Your task to perform on an android device: uninstall "Messages" Image 0: 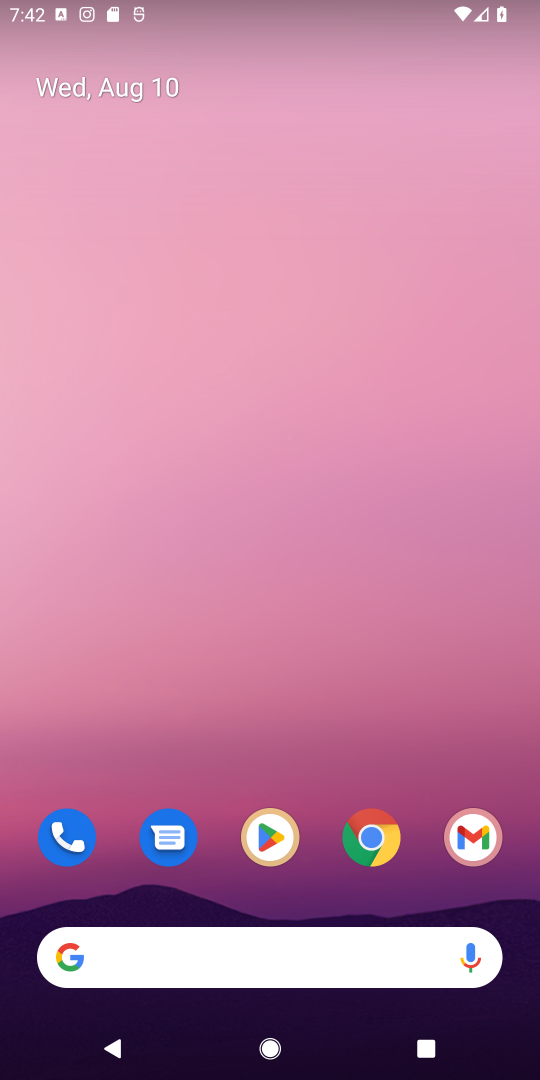
Step 0: press home button
Your task to perform on an android device: uninstall "Messages" Image 1: 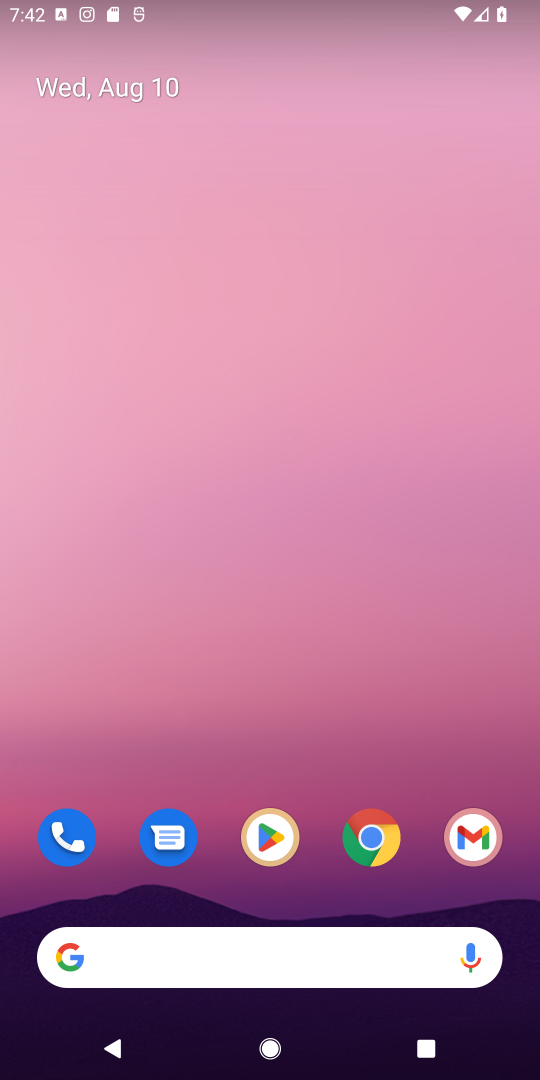
Step 1: click (264, 837)
Your task to perform on an android device: uninstall "Messages" Image 2: 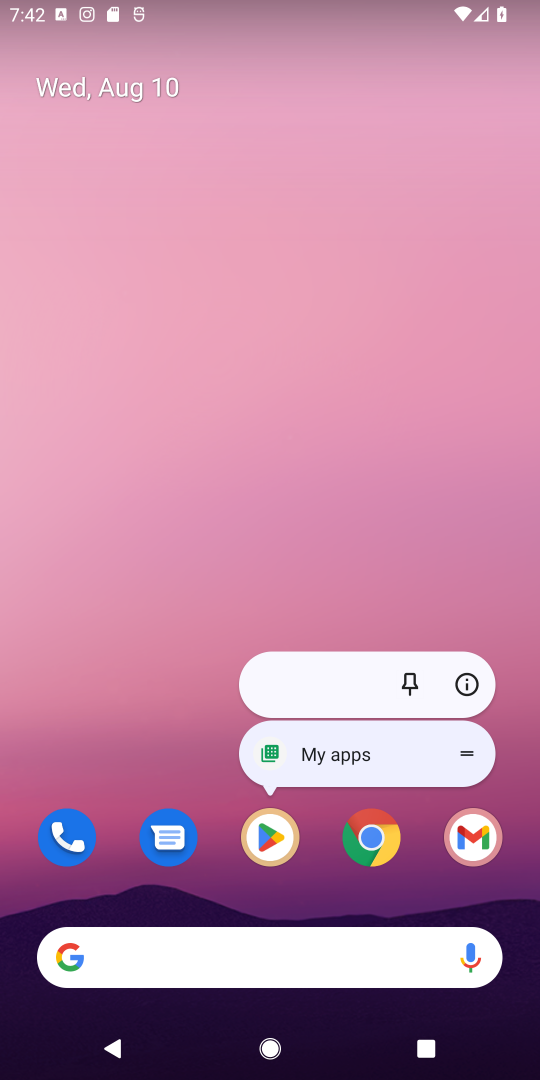
Step 2: click (273, 827)
Your task to perform on an android device: uninstall "Messages" Image 3: 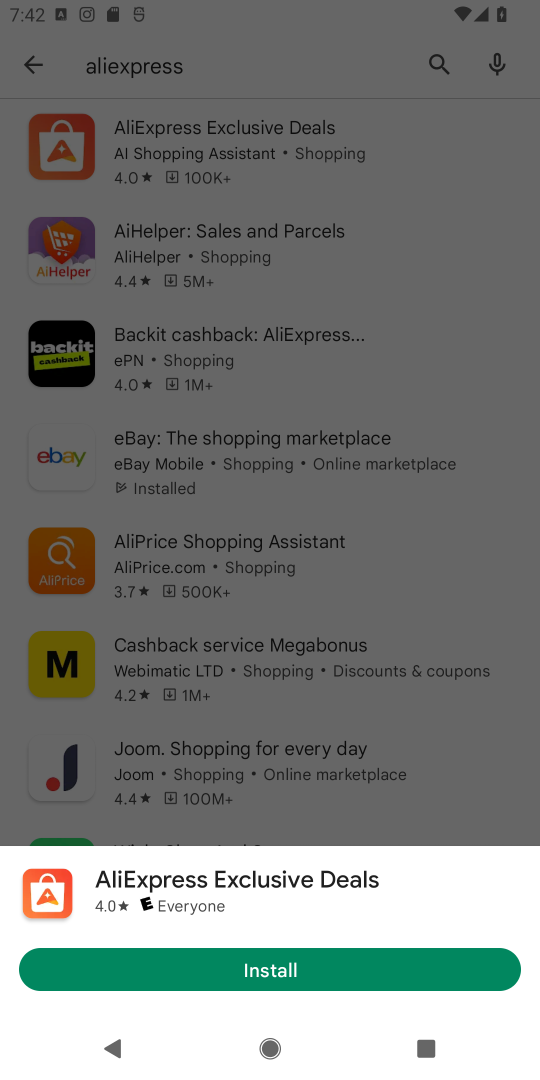
Step 3: click (440, 69)
Your task to perform on an android device: uninstall "Messages" Image 4: 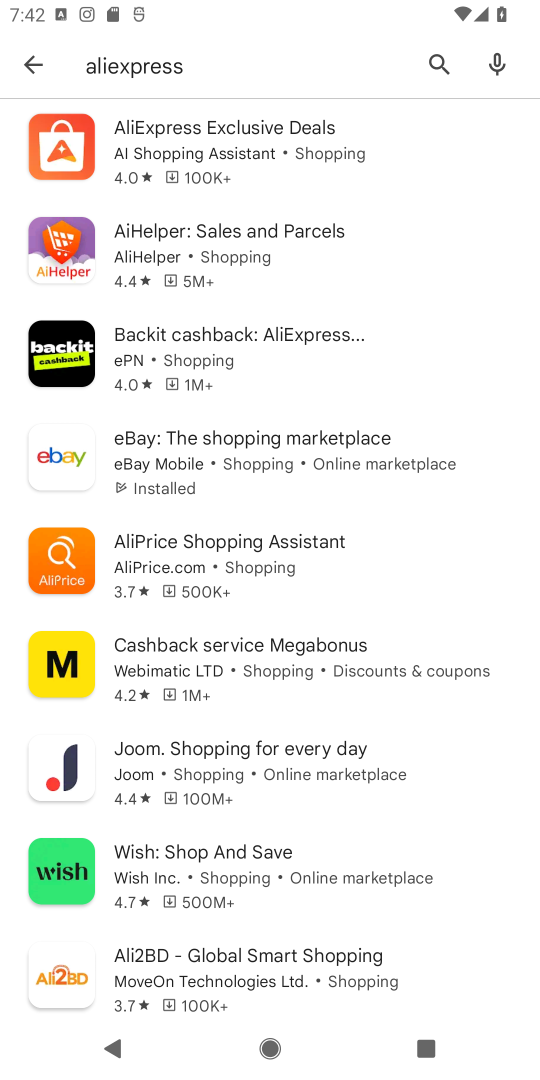
Step 4: click (440, 68)
Your task to perform on an android device: uninstall "Messages" Image 5: 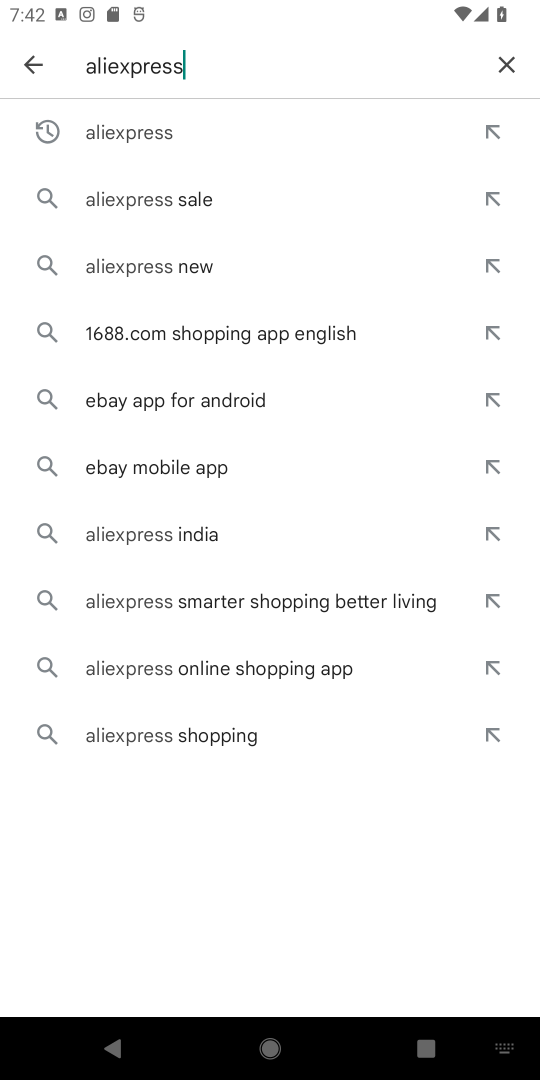
Step 5: click (502, 61)
Your task to perform on an android device: uninstall "Messages" Image 6: 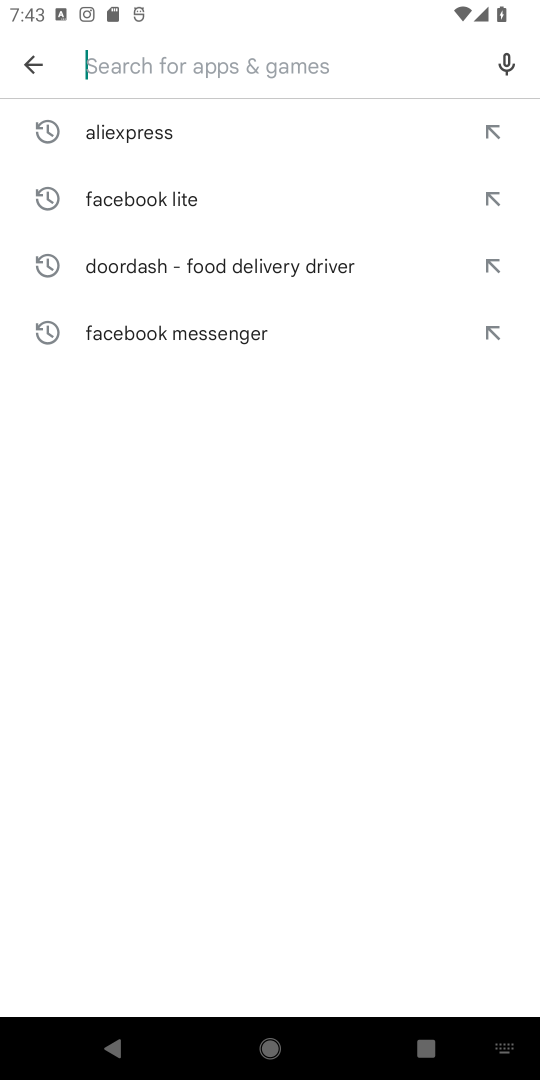
Step 6: type "Messages"
Your task to perform on an android device: uninstall "Messages" Image 7: 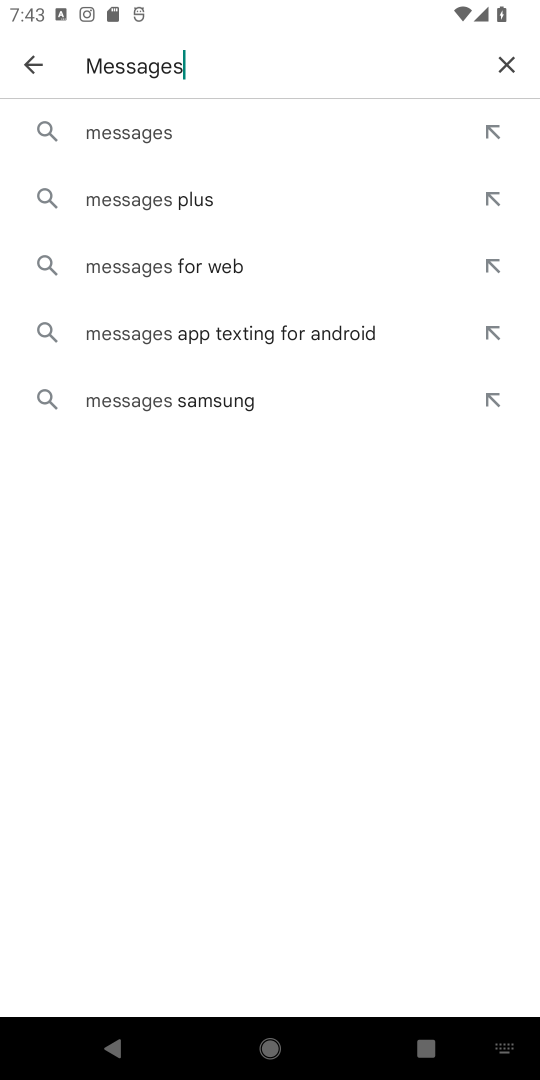
Step 7: click (120, 127)
Your task to perform on an android device: uninstall "Messages" Image 8: 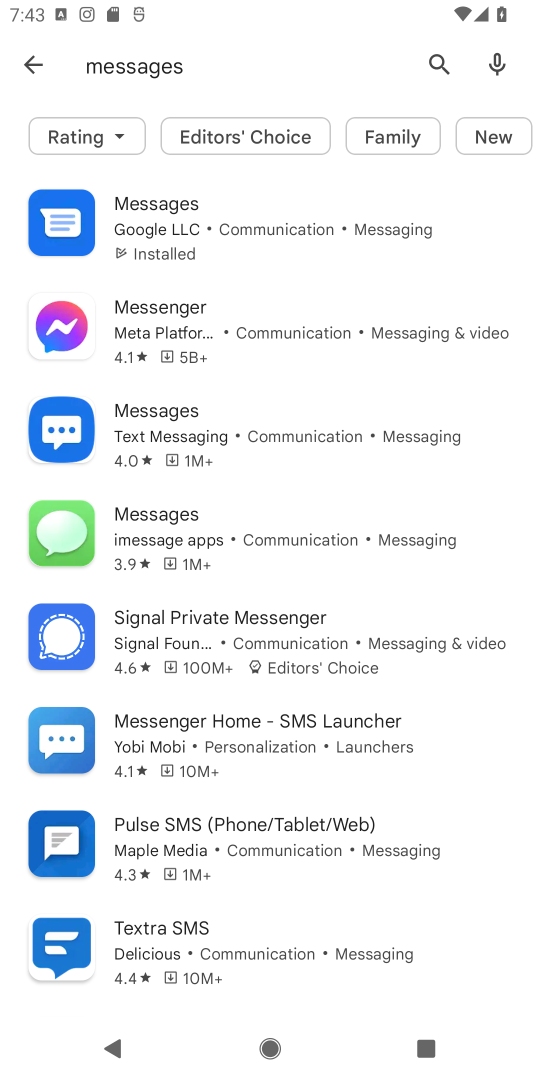
Step 8: click (175, 234)
Your task to perform on an android device: uninstall "Messages" Image 9: 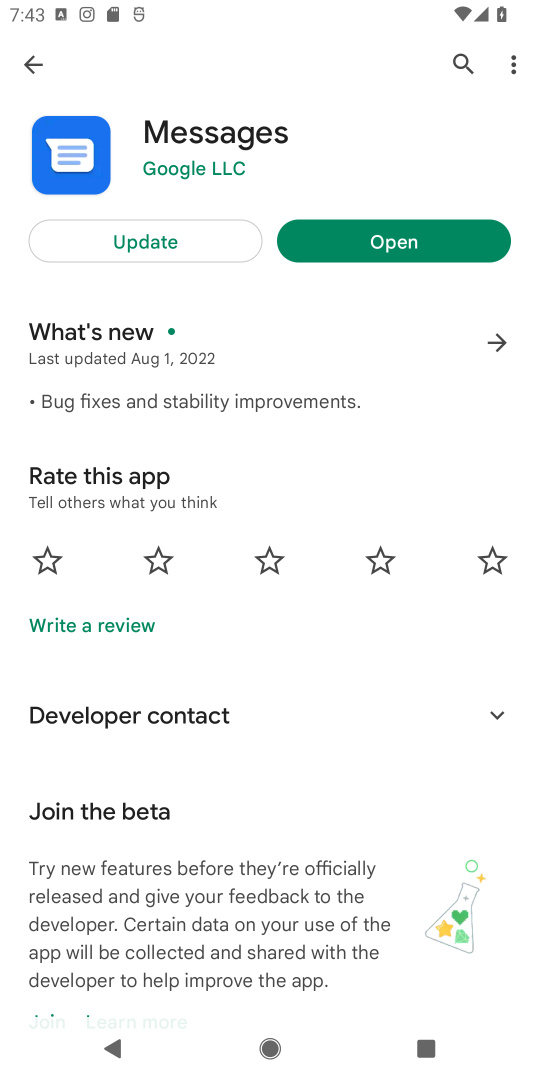
Step 9: task complete